Your task to perform on an android device: Open ESPN.com Image 0: 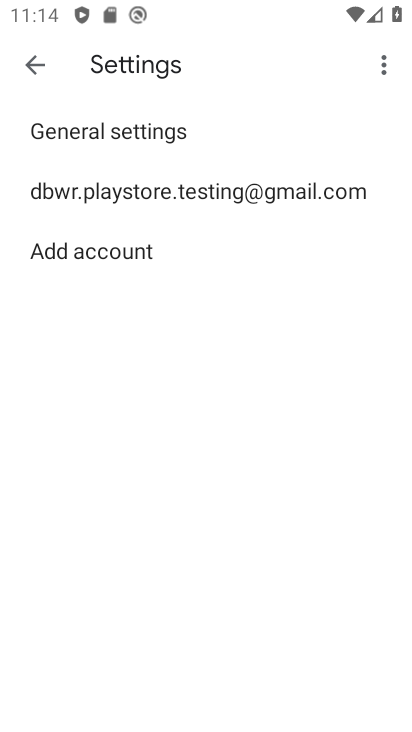
Step 0: task impossible